Your task to perform on an android device: open the mobile data screen to see how much data has been used Image 0: 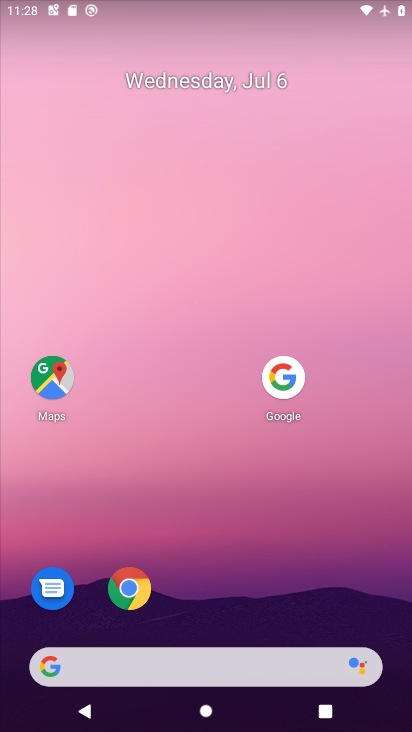
Step 0: drag from (141, 673) to (311, 20)
Your task to perform on an android device: open the mobile data screen to see how much data has been used Image 1: 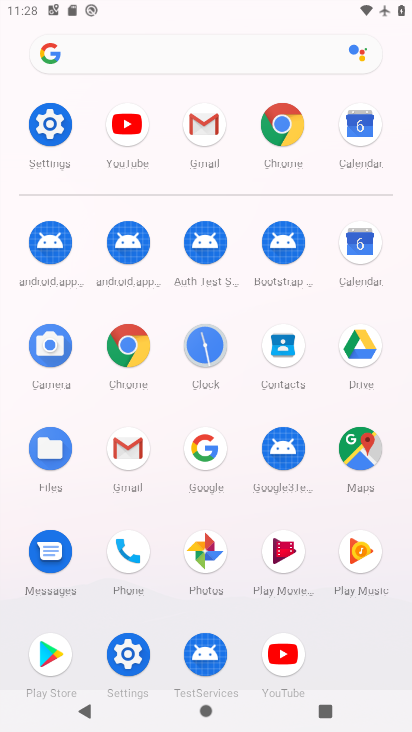
Step 1: click (56, 130)
Your task to perform on an android device: open the mobile data screen to see how much data has been used Image 2: 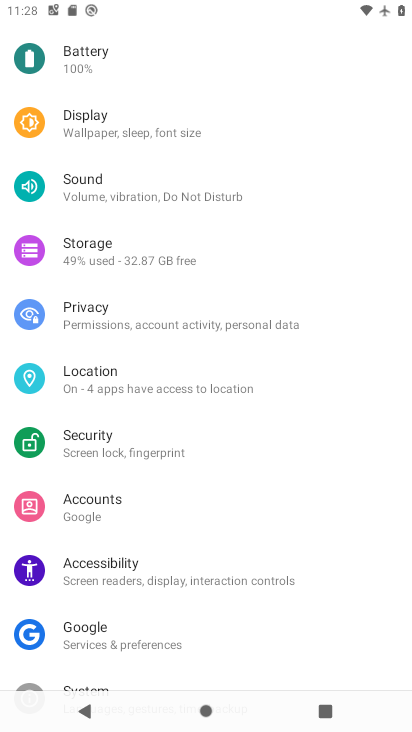
Step 2: drag from (302, 63) to (288, 586)
Your task to perform on an android device: open the mobile data screen to see how much data has been used Image 3: 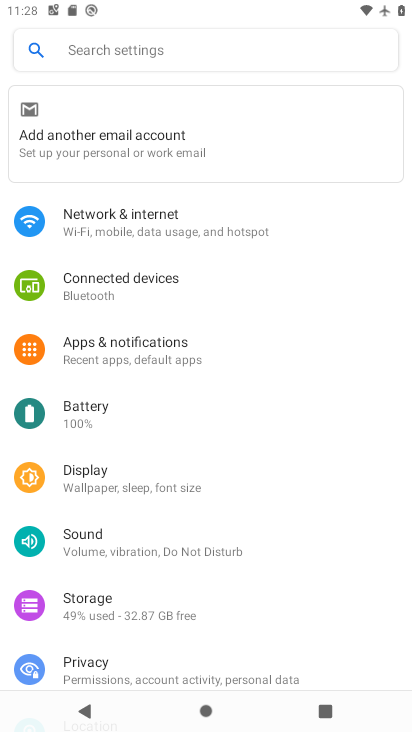
Step 3: click (139, 224)
Your task to perform on an android device: open the mobile data screen to see how much data has been used Image 4: 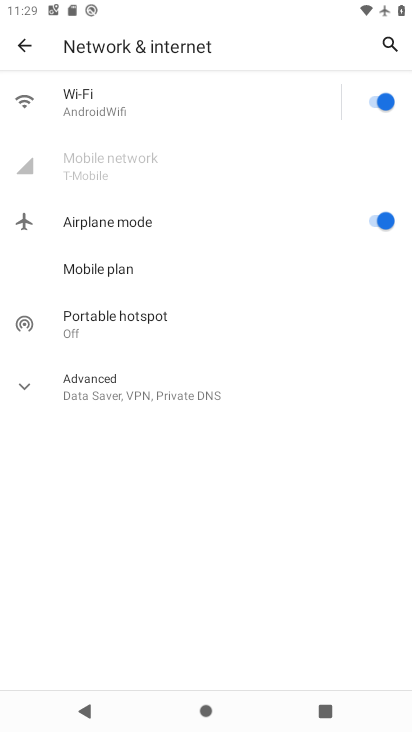
Step 4: task complete